Your task to perform on an android device: change your default location settings in chrome Image 0: 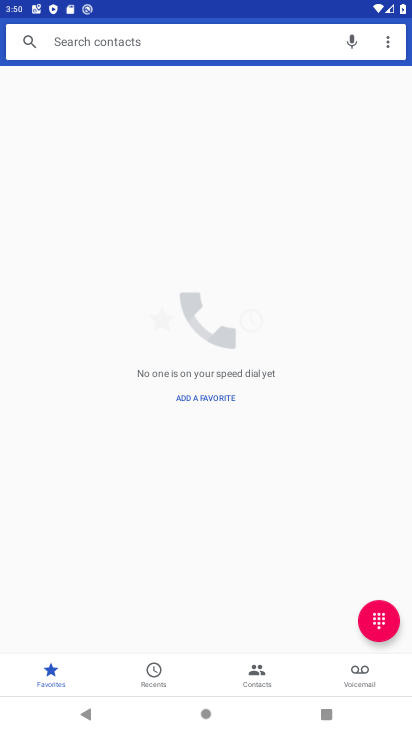
Step 0: task complete